Your task to perform on an android device: Open accessibility settings Image 0: 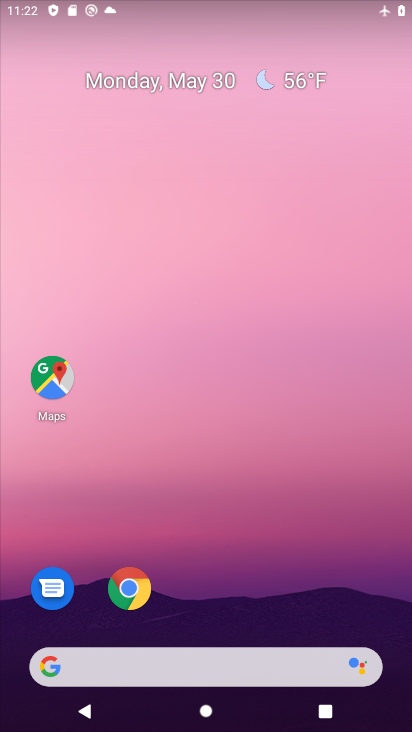
Step 0: drag from (189, 616) to (326, 1)
Your task to perform on an android device: Open accessibility settings Image 1: 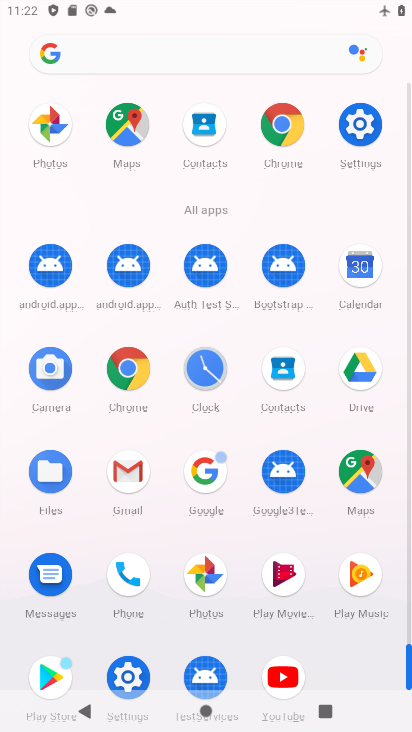
Step 1: click (134, 680)
Your task to perform on an android device: Open accessibility settings Image 2: 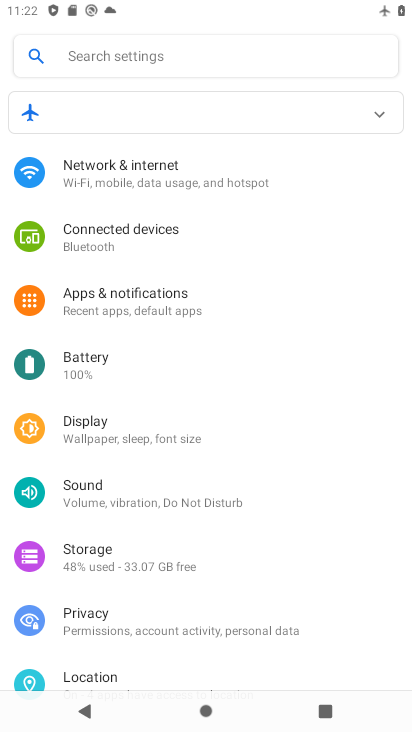
Step 2: drag from (160, 580) to (145, 162)
Your task to perform on an android device: Open accessibility settings Image 3: 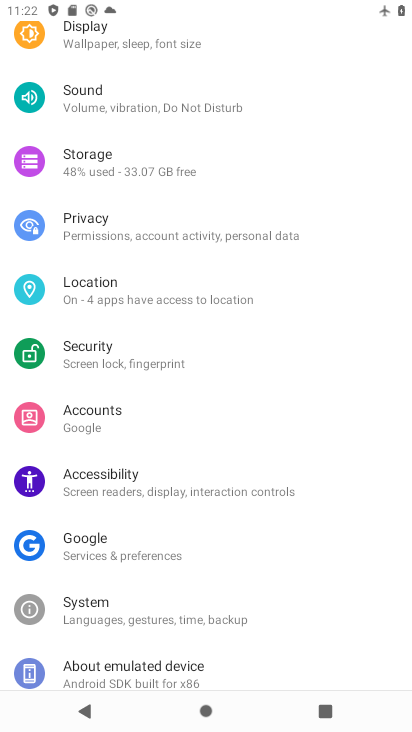
Step 3: drag from (112, 629) to (198, 101)
Your task to perform on an android device: Open accessibility settings Image 4: 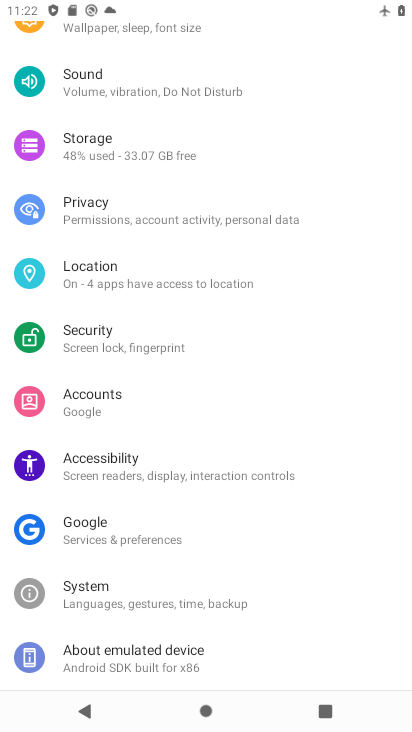
Step 4: click (86, 481)
Your task to perform on an android device: Open accessibility settings Image 5: 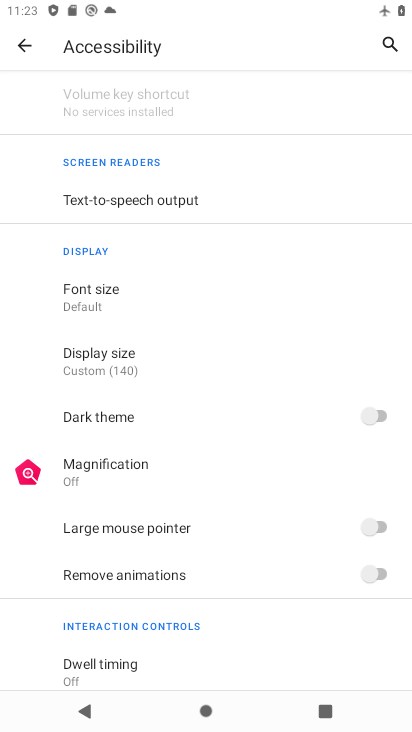
Step 5: task complete